Your task to perform on an android device: Open Youtube and go to the subscriptions tab Image 0: 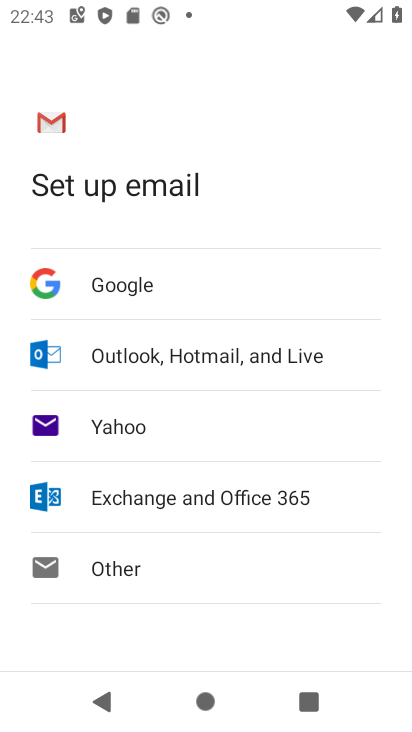
Step 0: press home button
Your task to perform on an android device: Open Youtube and go to the subscriptions tab Image 1: 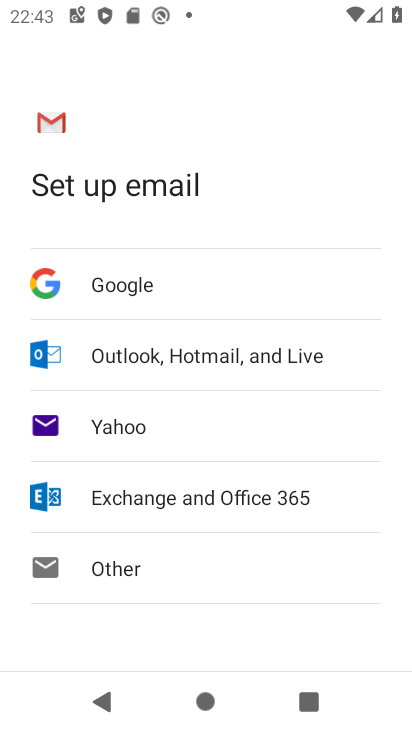
Step 1: press home button
Your task to perform on an android device: Open Youtube and go to the subscriptions tab Image 2: 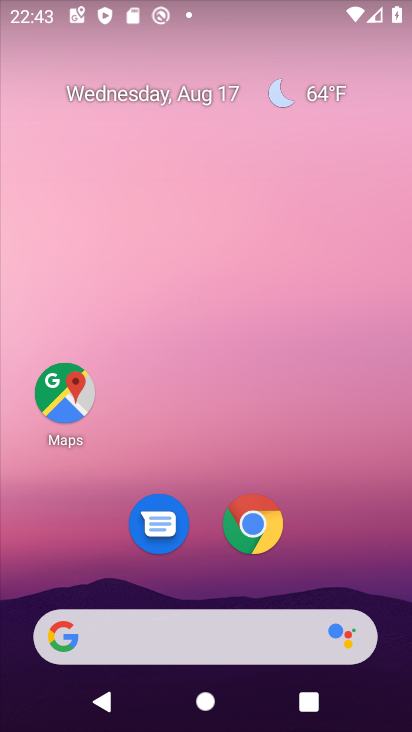
Step 2: drag from (309, 564) to (324, 9)
Your task to perform on an android device: Open Youtube and go to the subscriptions tab Image 3: 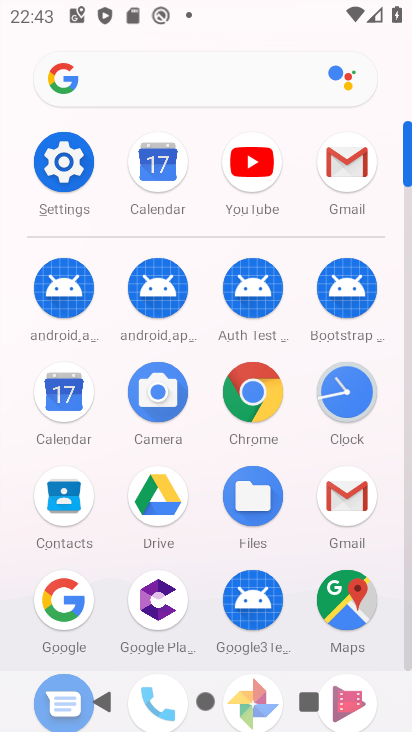
Step 3: click (265, 160)
Your task to perform on an android device: Open Youtube and go to the subscriptions tab Image 4: 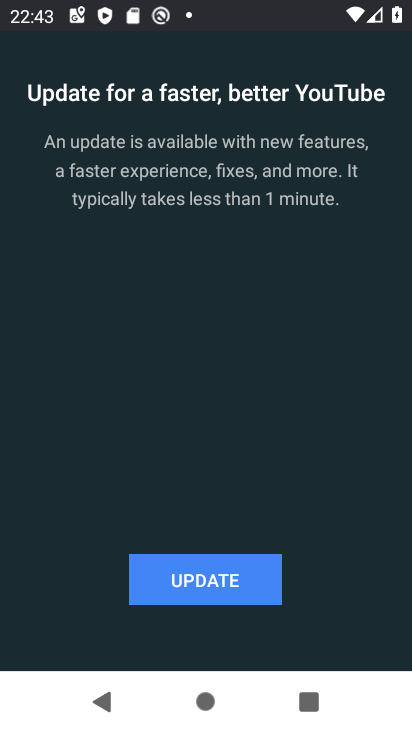
Step 4: click (226, 591)
Your task to perform on an android device: Open Youtube and go to the subscriptions tab Image 5: 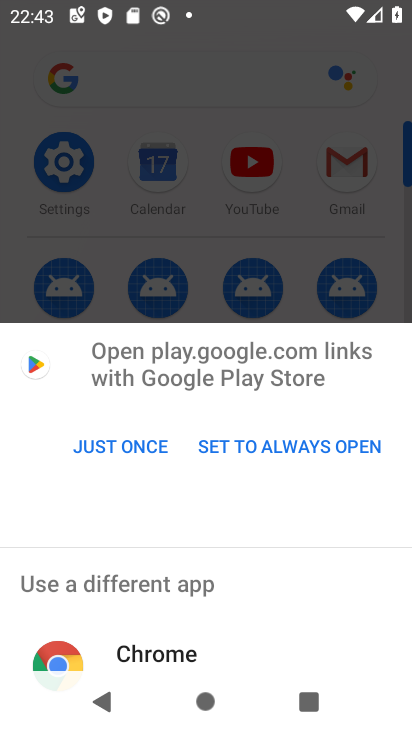
Step 5: click (139, 444)
Your task to perform on an android device: Open Youtube and go to the subscriptions tab Image 6: 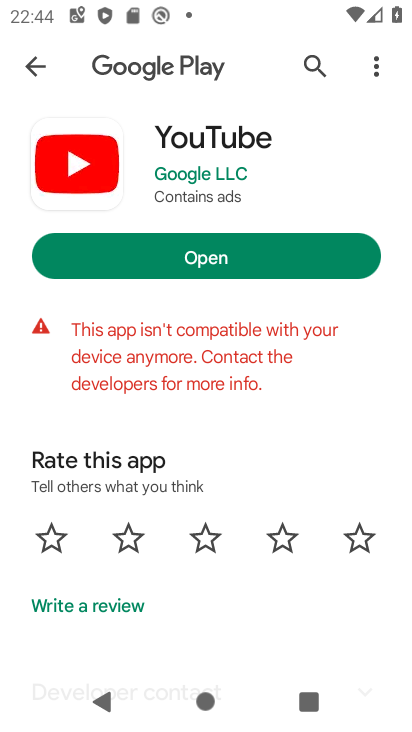
Step 6: click (271, 269)
Your task to perform on an android device: Open Youtube and go to the subscriptions tab Image 7: 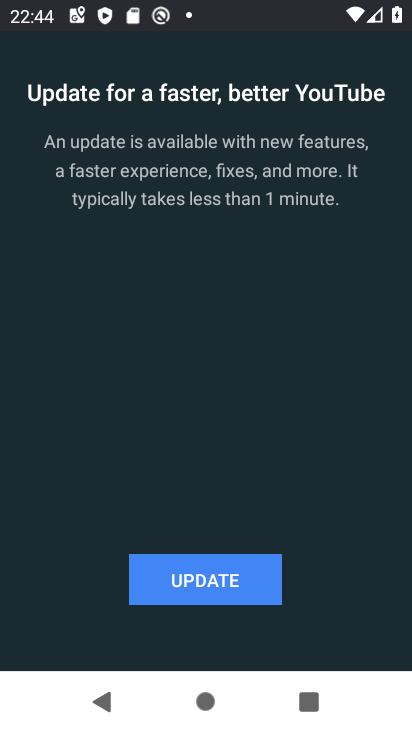
Step 7: task complete